Your task to perform on an android device: turn off data saver in the chrome app Image 0: 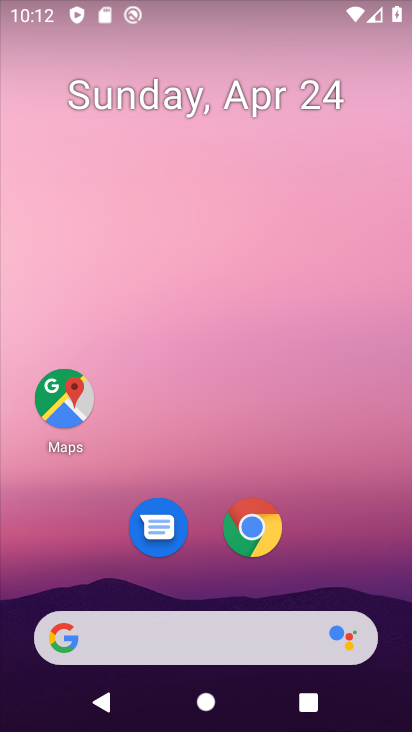
Step 0: click (247, 529)
Your task to perform on an android device: turn off data saver in the chrome app Image 1: 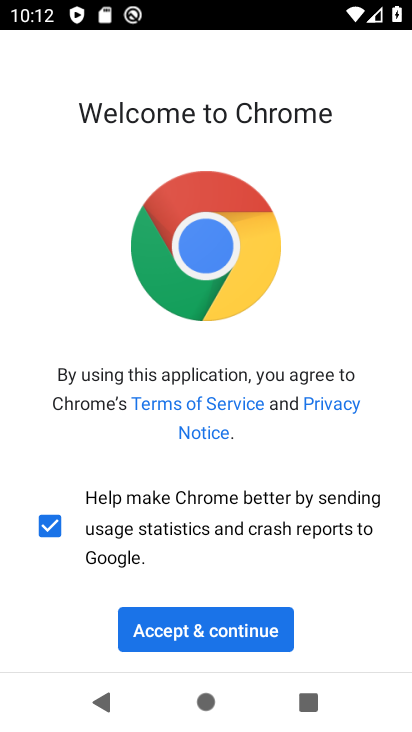
Step 1: click (203, 642)
Your task to perform on an android device: turn off data saver in the chrome app Image 2: 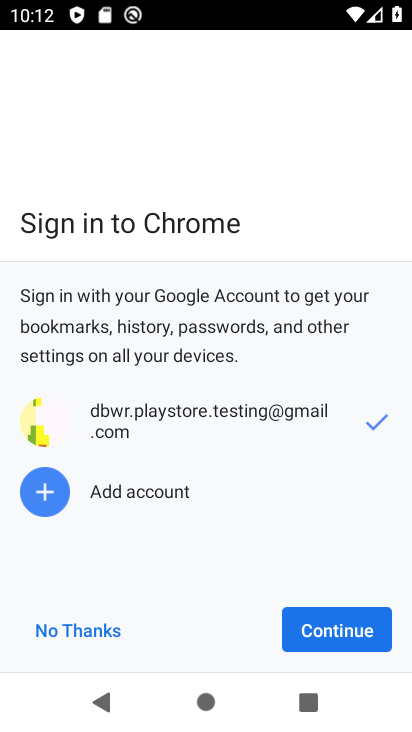
Step 2: click (320, 629)
Your task to perform on an android device: turn off data saver in the chrome app Image 3: 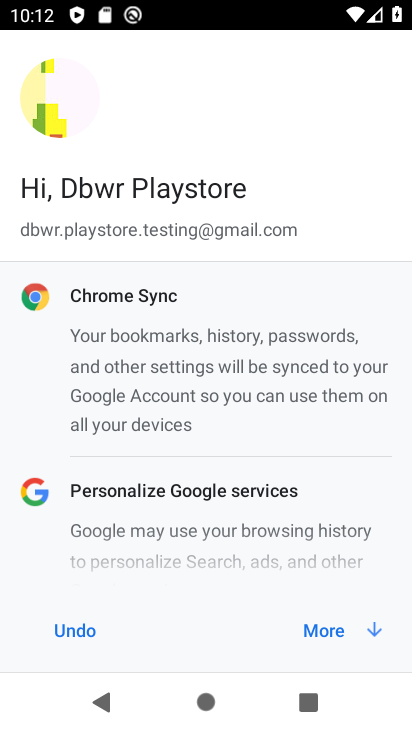
Step 3: click (335, 630)
Your task to perform on an android device: turn off data saver in the chrome app Image 4: 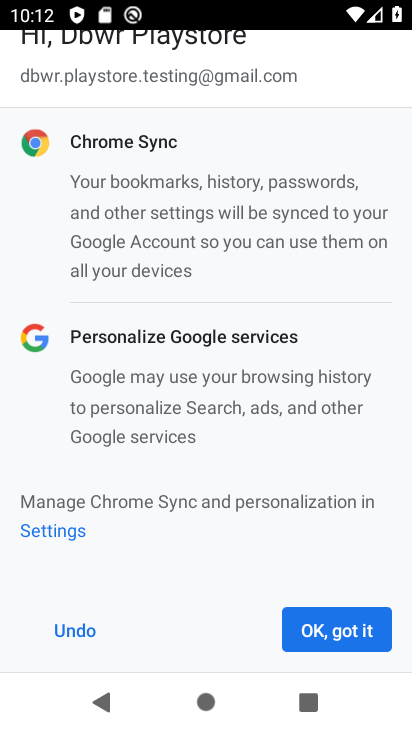
Step 4: click (334, 628)
Your task to perform on an android device: turn off data saver in the chrome app Image 5: 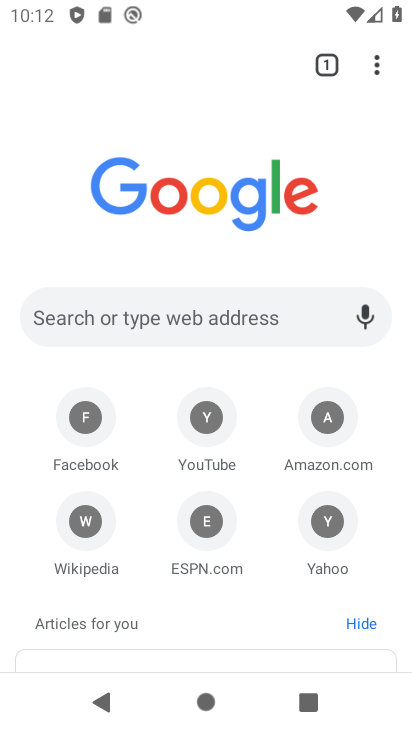
Step 5: click (379, 57)
Your task to perform on an android device: turn off data saver in the chrome app Image 6: 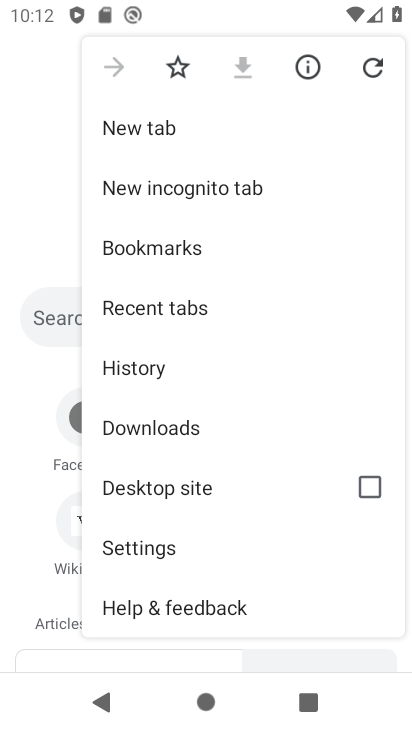
Step 6: click (152, 556)
Your task to perform on an android device: turn off data saver in the chrome app Image 7: 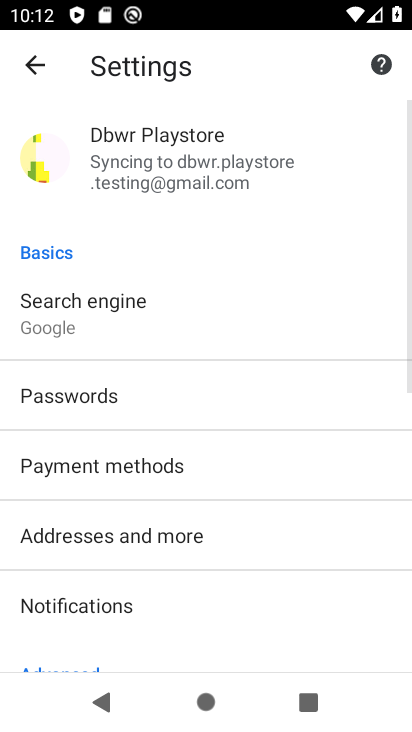
Step 7: drag from (117, 566) to (180, 214)
Your task to perform on an android device: turn off data saver in the chrome app Image 8: 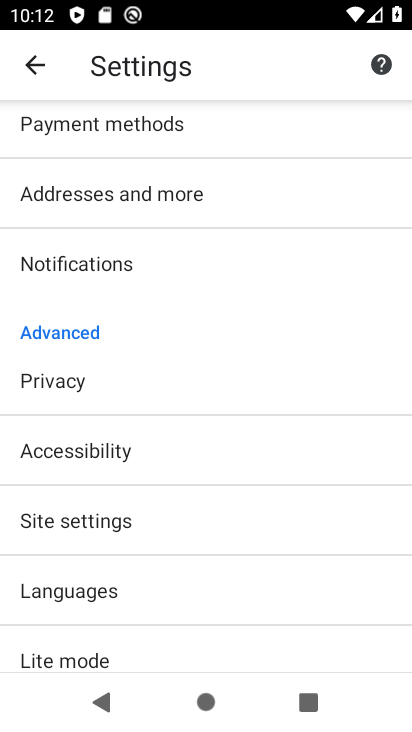
Step 8: click (76, 650)
Your task to perform on an android device: turn off data saver in the chrome app Image 9: 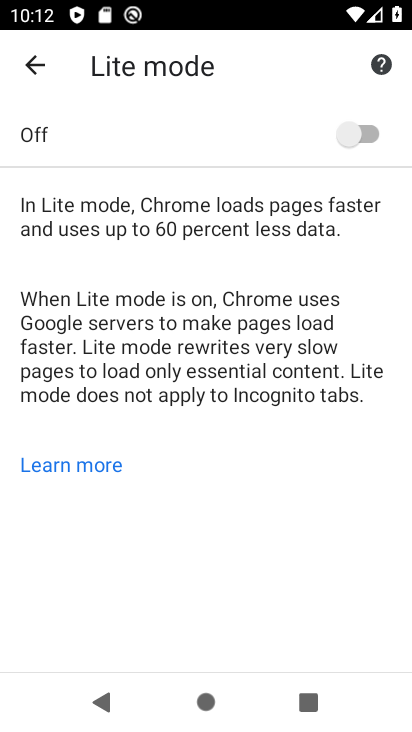
Step 9: task complete